Your task to perform on an android device: turn on data saver in the chrome app Image 0: 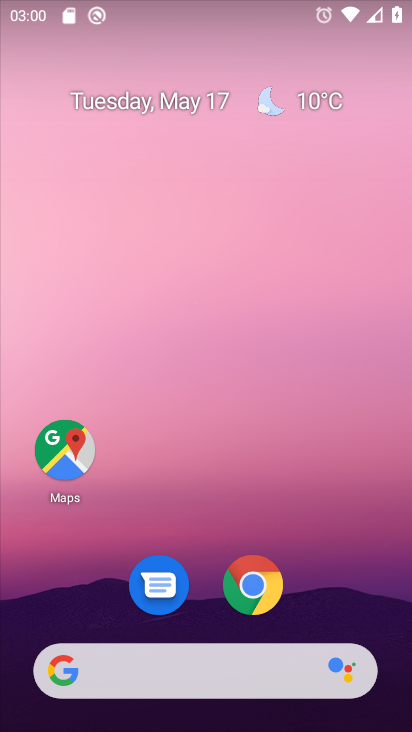
Step 0: click (250, 596)
Your task to perform on an android device: turn on data saver in the chrome app Image 1: 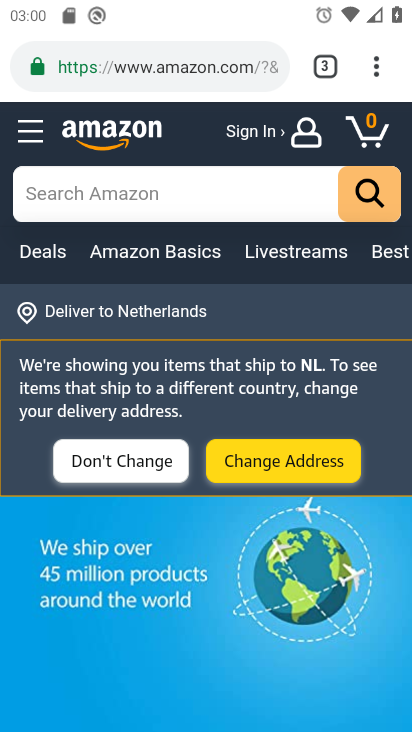
Step 1: click (368, 67)
Your task to perform on an android device: turn on data saver in the chrome app Image 2: 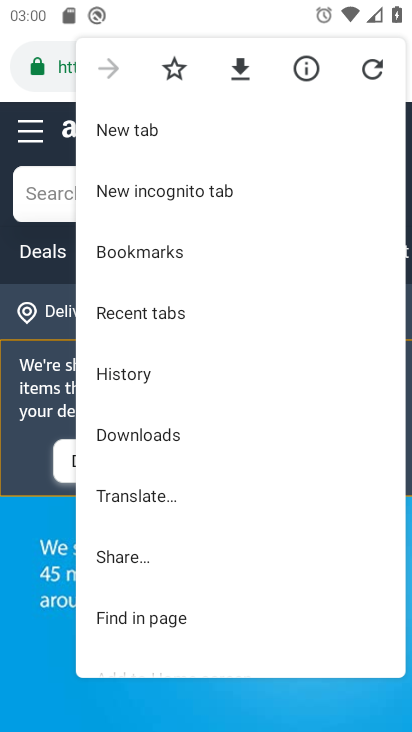
Step 2: drag from (230, 566) to (244, 329)
Your task to perform on an android device: turn on data saver in the chrome app Image 3: 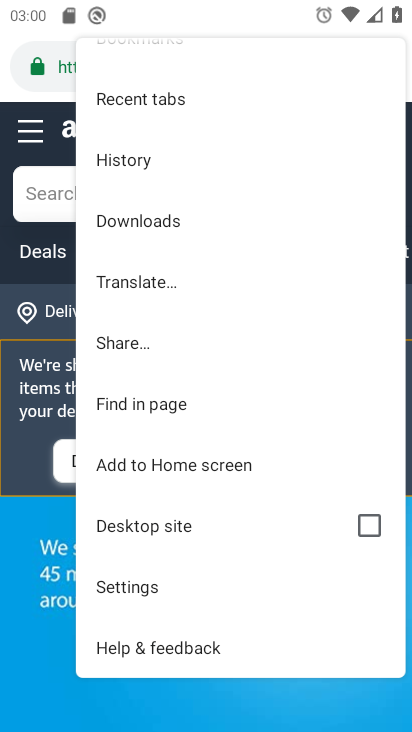
Step 3: click (169, 584)
Your task to perform on an android device: turn on data saver in the chrome app Image 4: 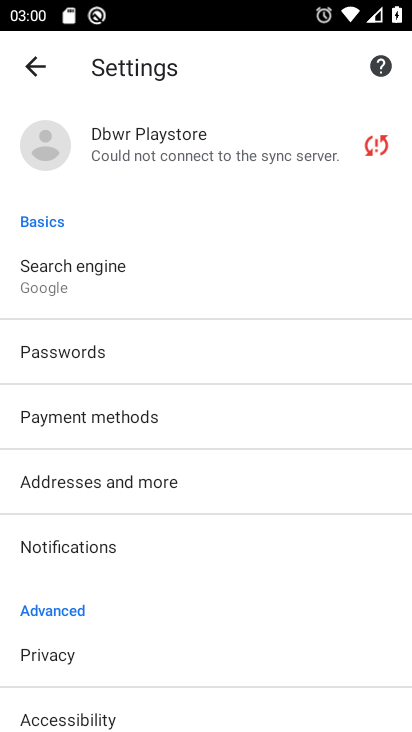
Step 4: drag from (260, 542) to (289, 245)
Your task to perform on an android device: turn on data saver in the chrome app Image 5: 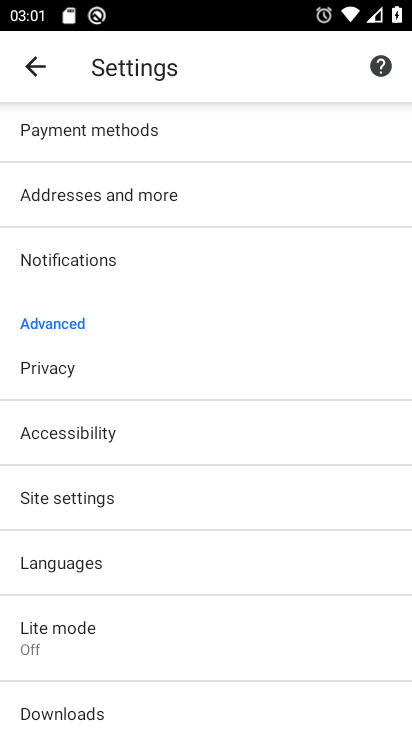
Step 5: click (186, 651)
Your task to perform on an android device: turn on data saver in the chrome app Image 6: 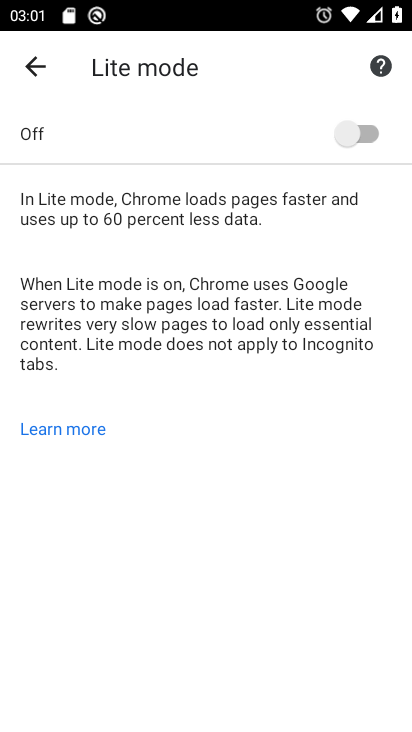
Step 6: click (357, 122)
Your task to perform on an android device: turn on data saver in the chrome app Image 7: 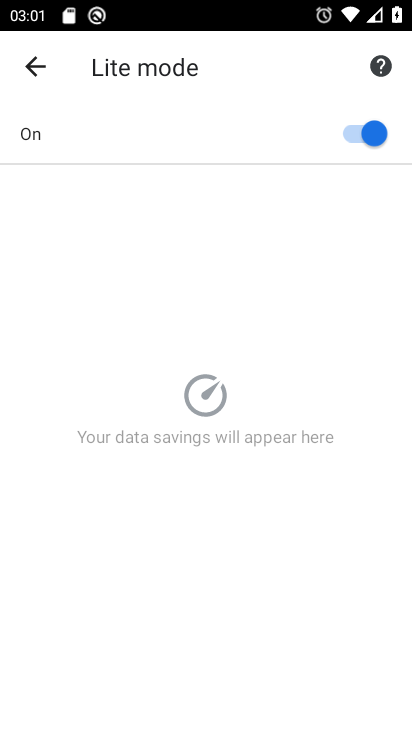
Step 7: task complete